Your task to perform on an android device: Go to Reddit.com Image 0: 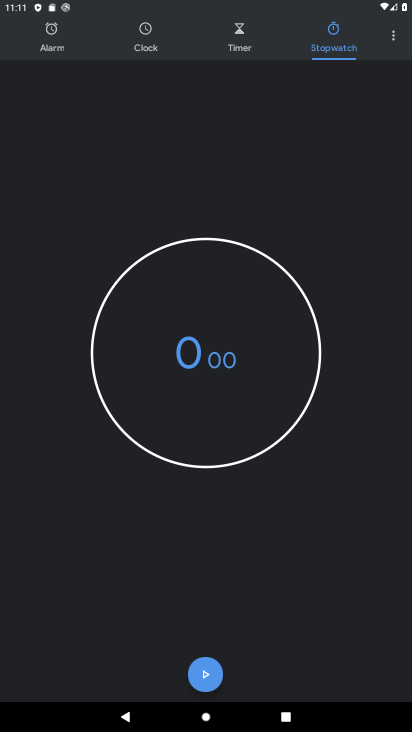
Step 0: press home button
Your task to perform on an android device: Go to Reddit.com Image 1: 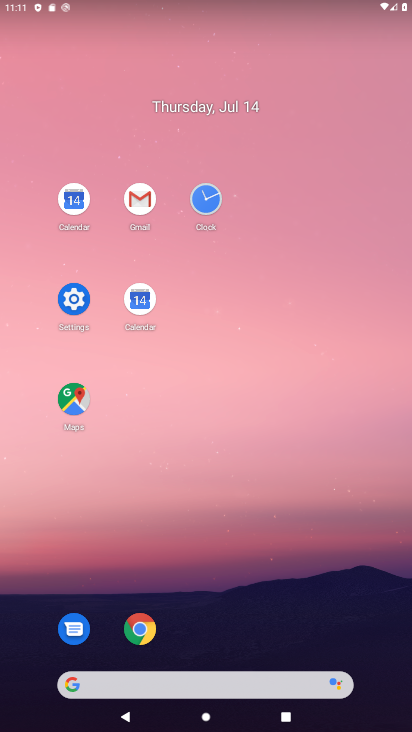
Step 1: click (152, 622)
Your task to perform on an android device: Go to Reddit.com Image 2: 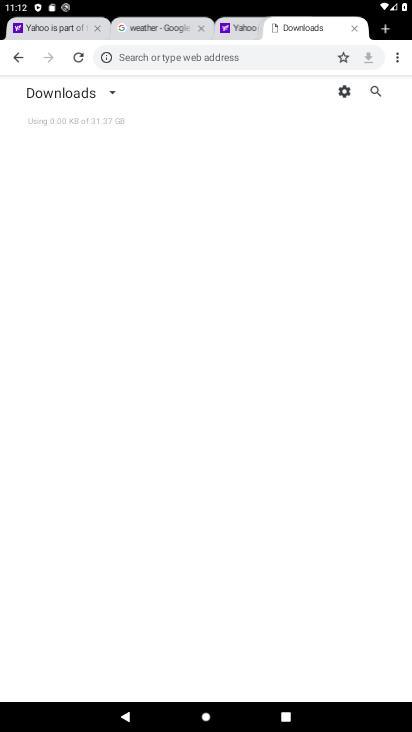
Step 2: click (383, 29)
Your task to perform on an android device: Go to Reddit.com Image 3: 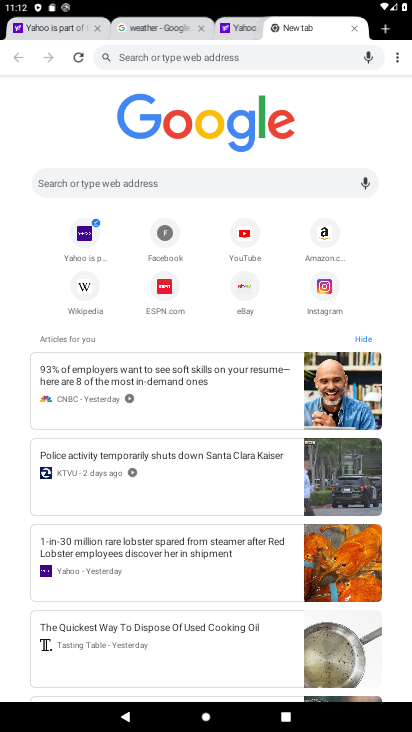
Step 3: click (145, 174)
Your task to perform on an android device: Go to Reddit.com Image 4: 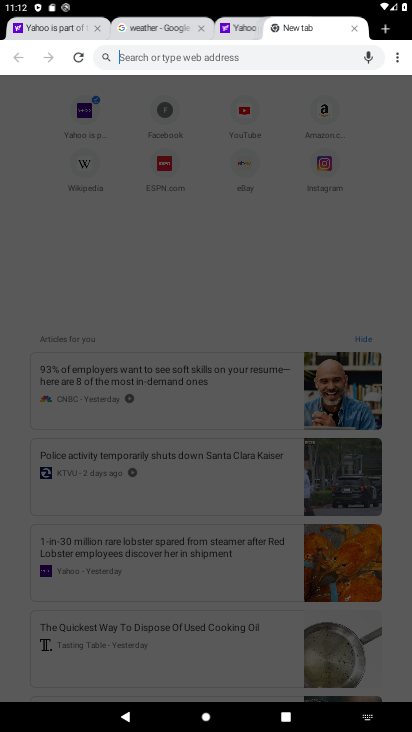
Step 4: type "reddit"
Your task to perform on an android device: Go to Reddit.com Image 5: 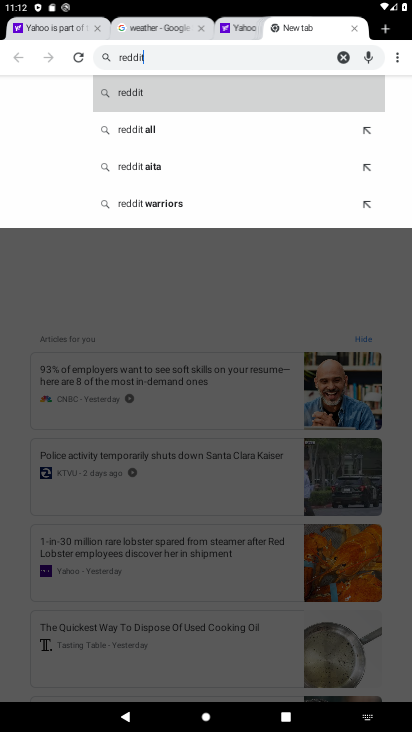
Step 5: click (152, 95)
Your task to perform on an android device: Go to Reddit.com Image 6: 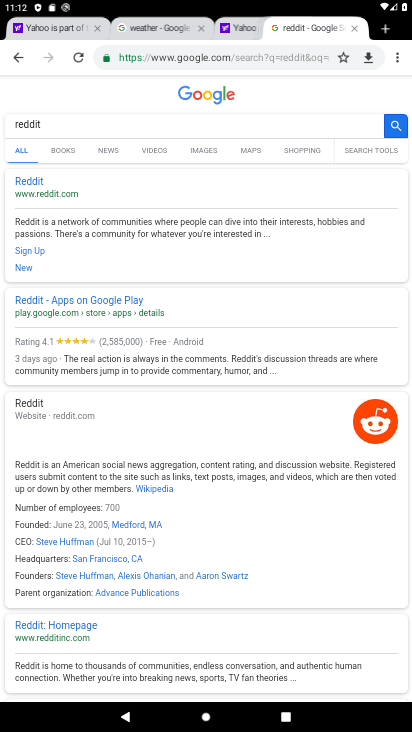
Step 6: click (34, 175)
Your task to perform on an android device: Go to Reddit.com Image 7: 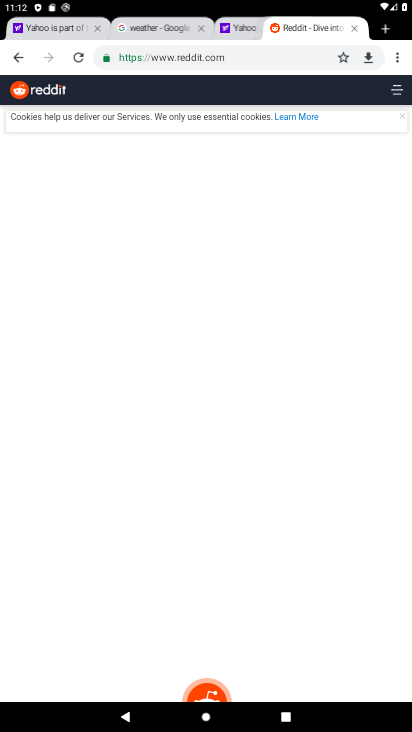
Step 7: task complete